Your task to perform on an android device: add a label to a message in the gmail app Image 0: 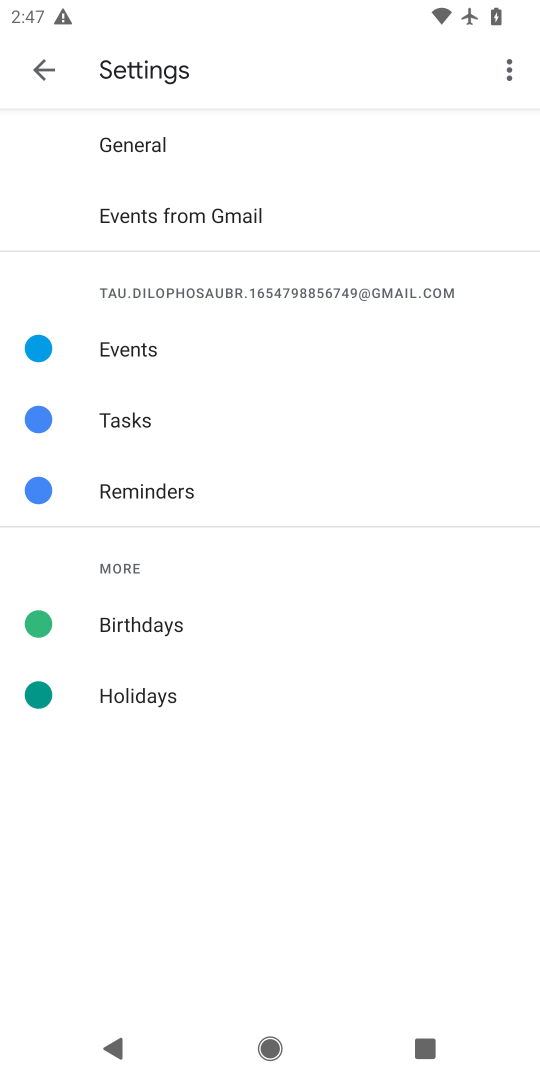
Step 0: press home button
Your task to perform on an android device: add a label to a message in the gmail app Image 1: 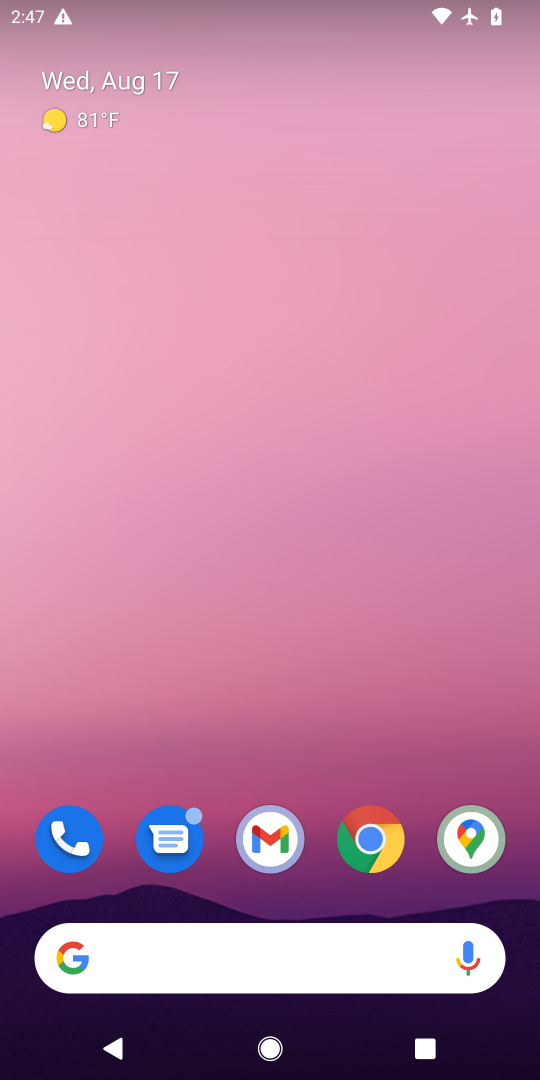
Step 1: drag from (332, 845) to (271, 72)
Your task to perform on an android device: add a label to a message in the gmail app Image 2: 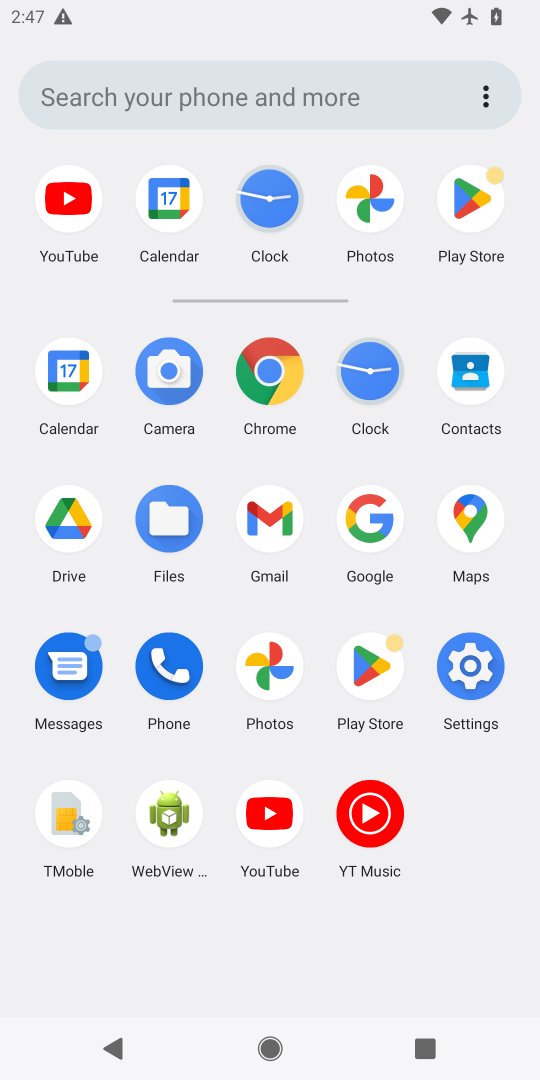
Step 2: click (278, 520)
Your task to perform on an android device: add a label to a message in the gmail app Image 3: 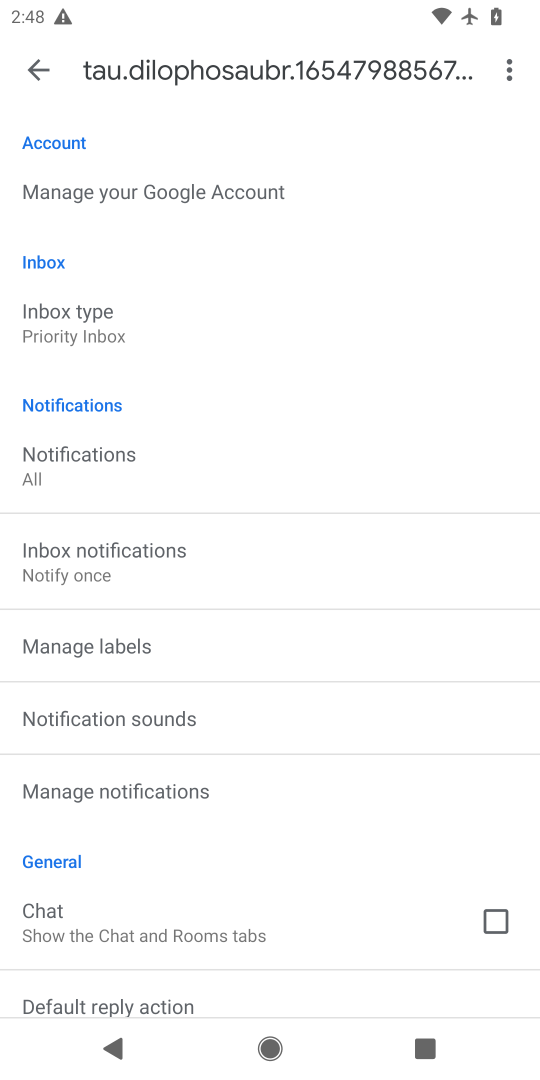
Step 3: click (38, 65)
Your task to perform on an android device: add a label to a message in the gmail app Image 4: 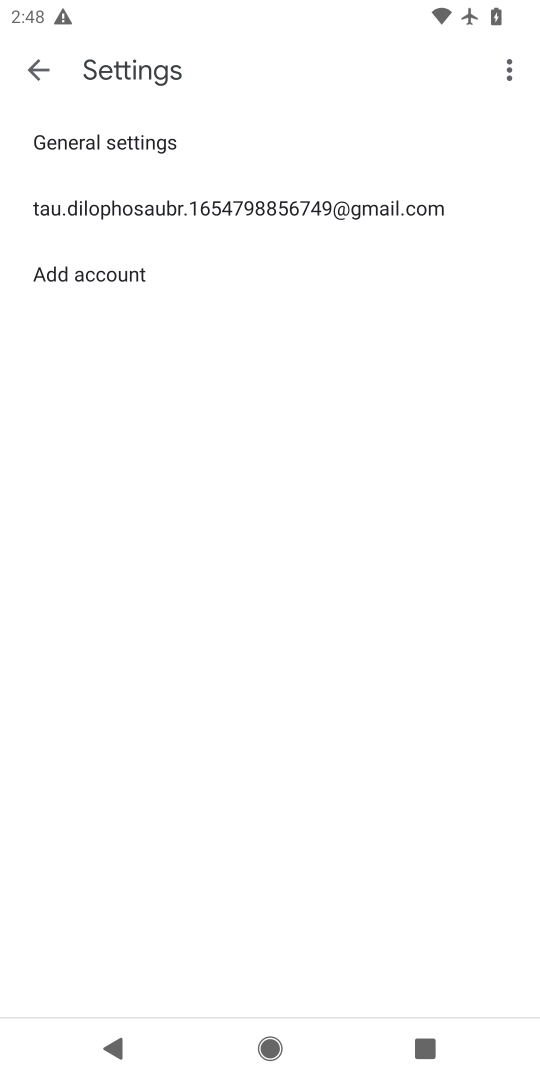
Step 4: click (38, 65)
Your task to perform on an android device: add a label to a message in the gmail app Image 5: 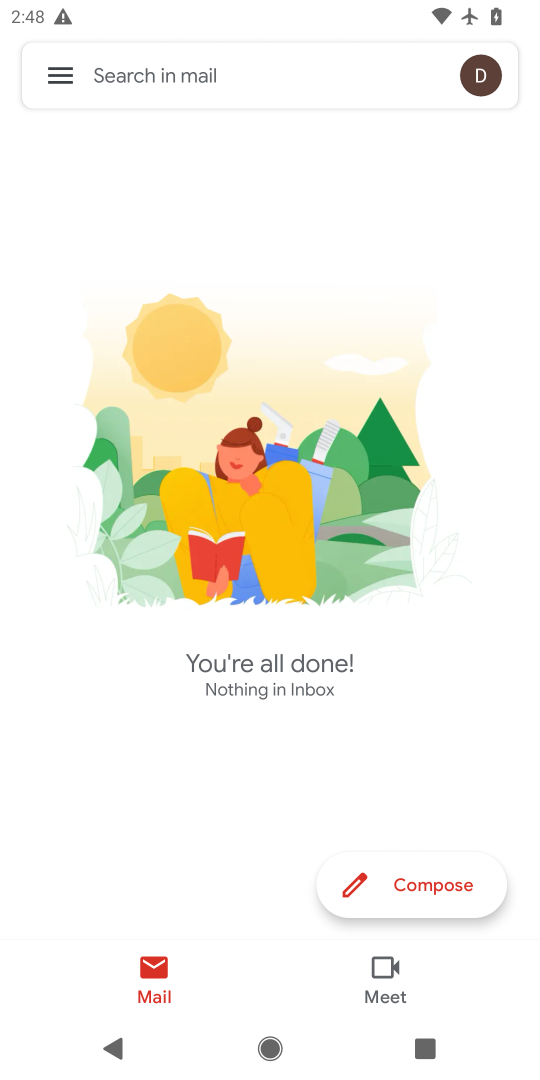
Step 5: task complete